Your task to perform on an android device: toggle improve location accuracy Image 0: 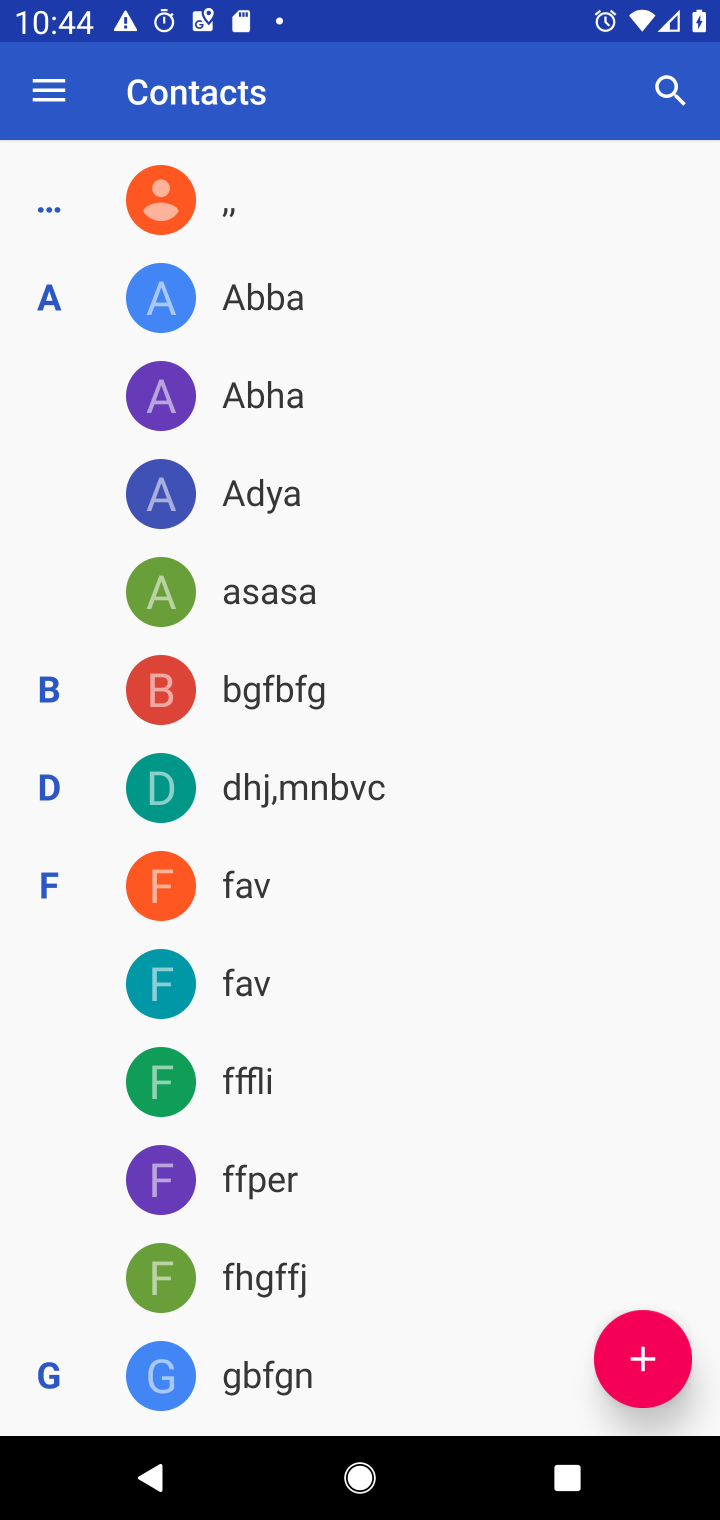
Step 0: press home button
Your task to perform on an android device: toggle improve location accuracy Image 1: 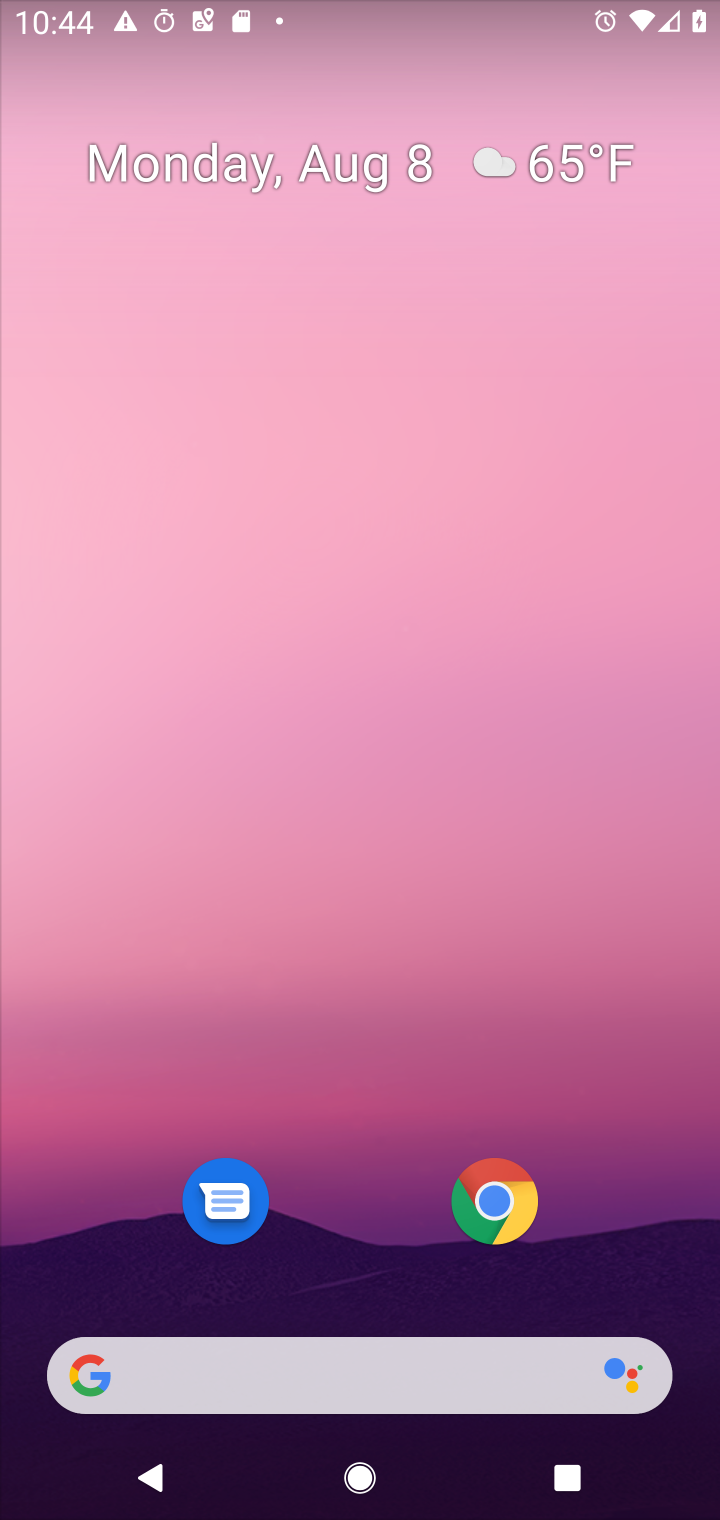
Step 1: drag from (367, 1263) to (442, 282)
Your task to perform on an android device: toggle improve location accuracy Image 2: 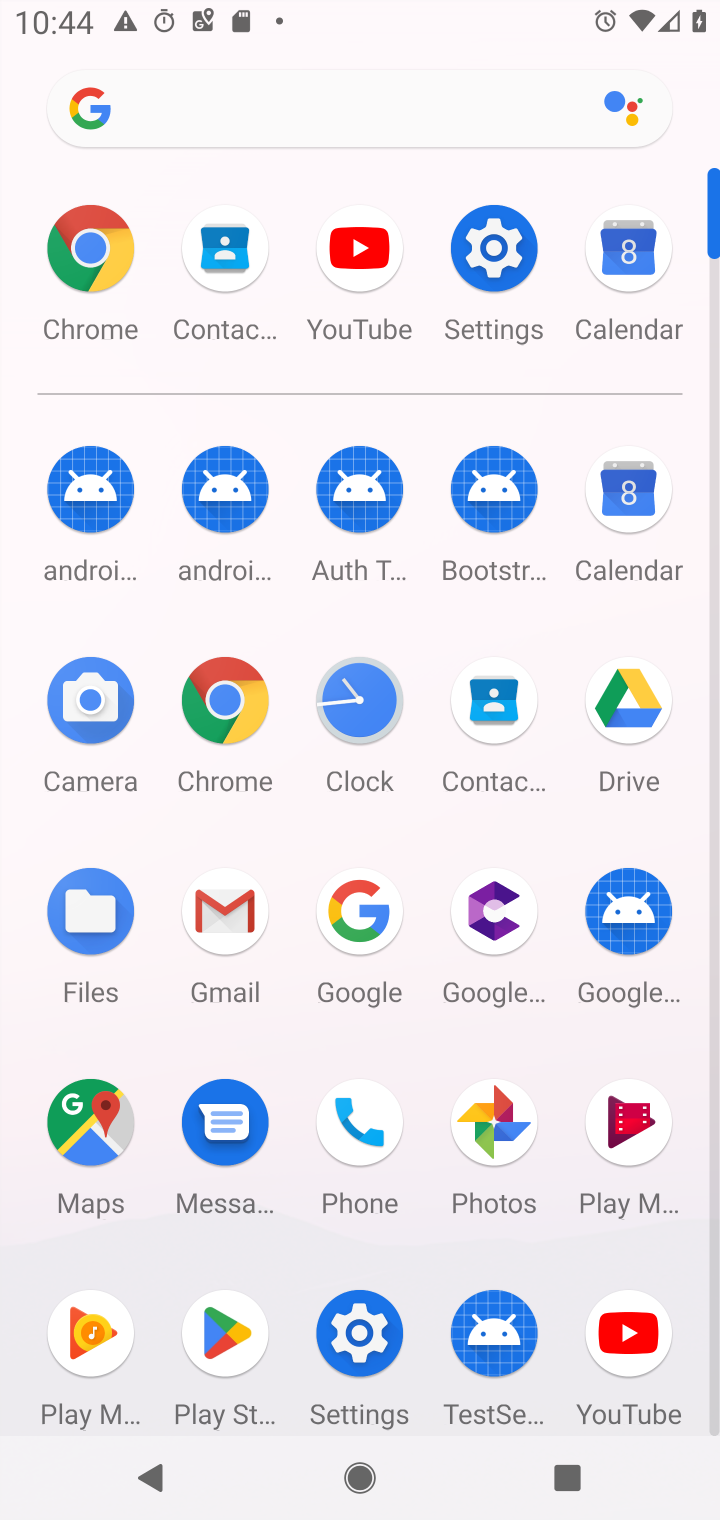
Step 2: click (499, 244)
Your task to perform on an android device: toggle improve location accuracy Image 3: 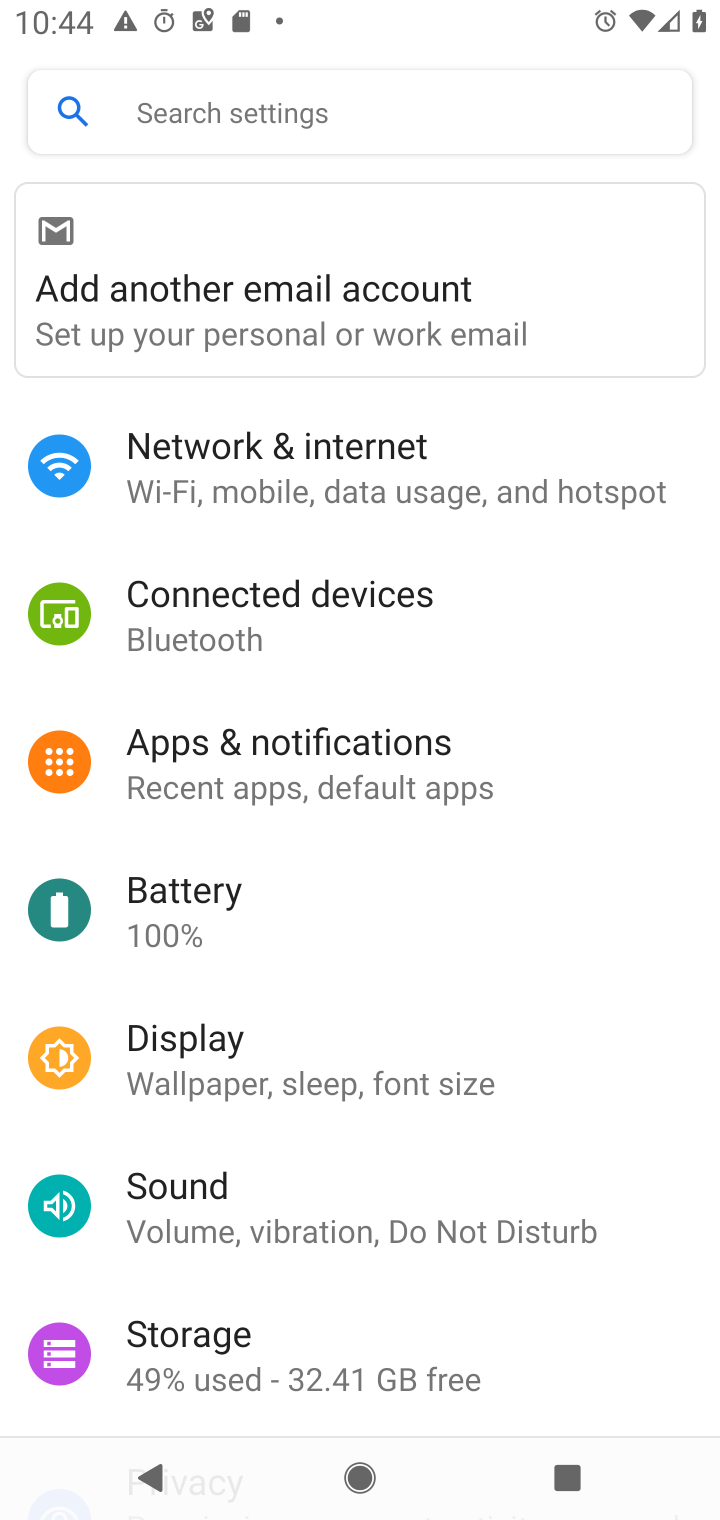
Step 3: drag from (631, 830) to (657, 548)
Your task to perform on an android device: toggle improve location accuracy Image 4: 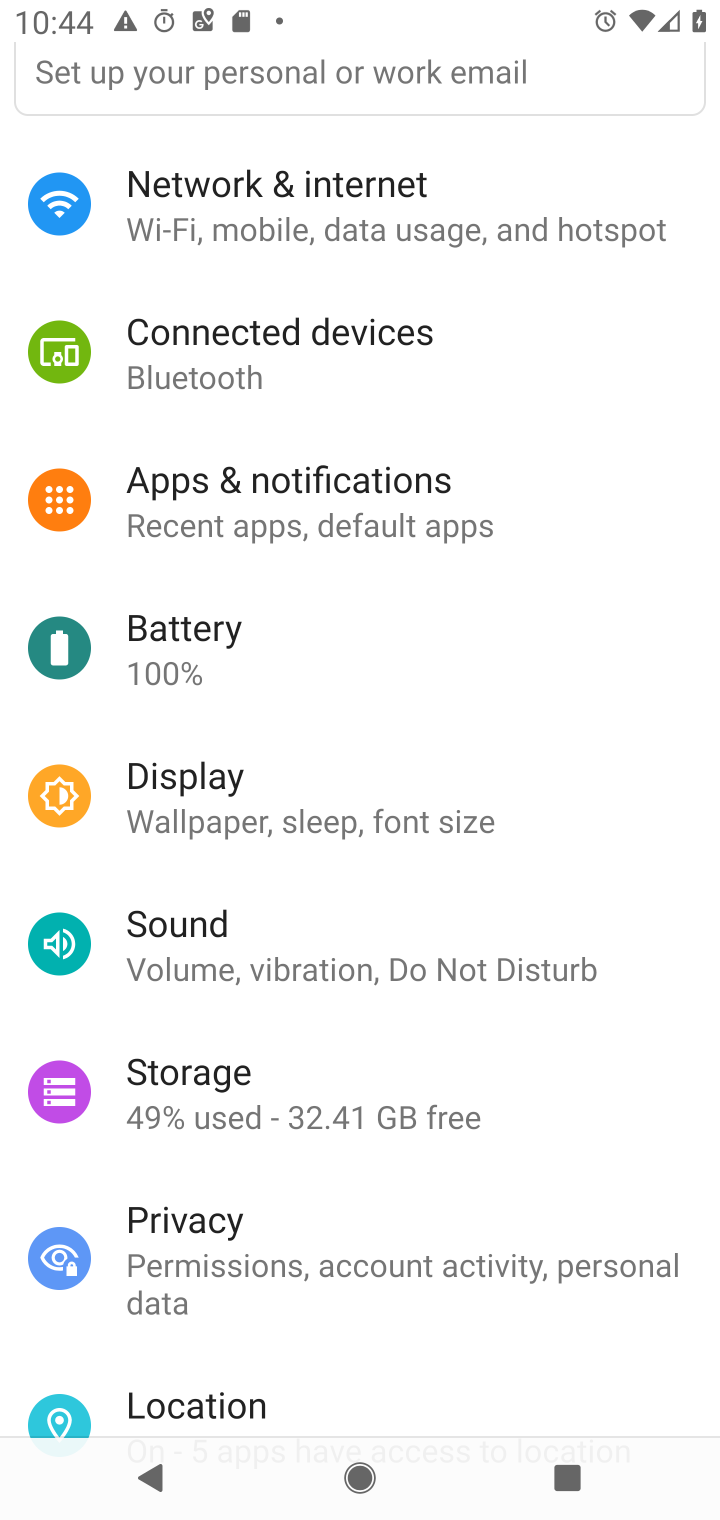
Step 4: drag from (646, 837) to (628, 497)
Your task to perform on an android device: toggle improve location accuracy Image 5: 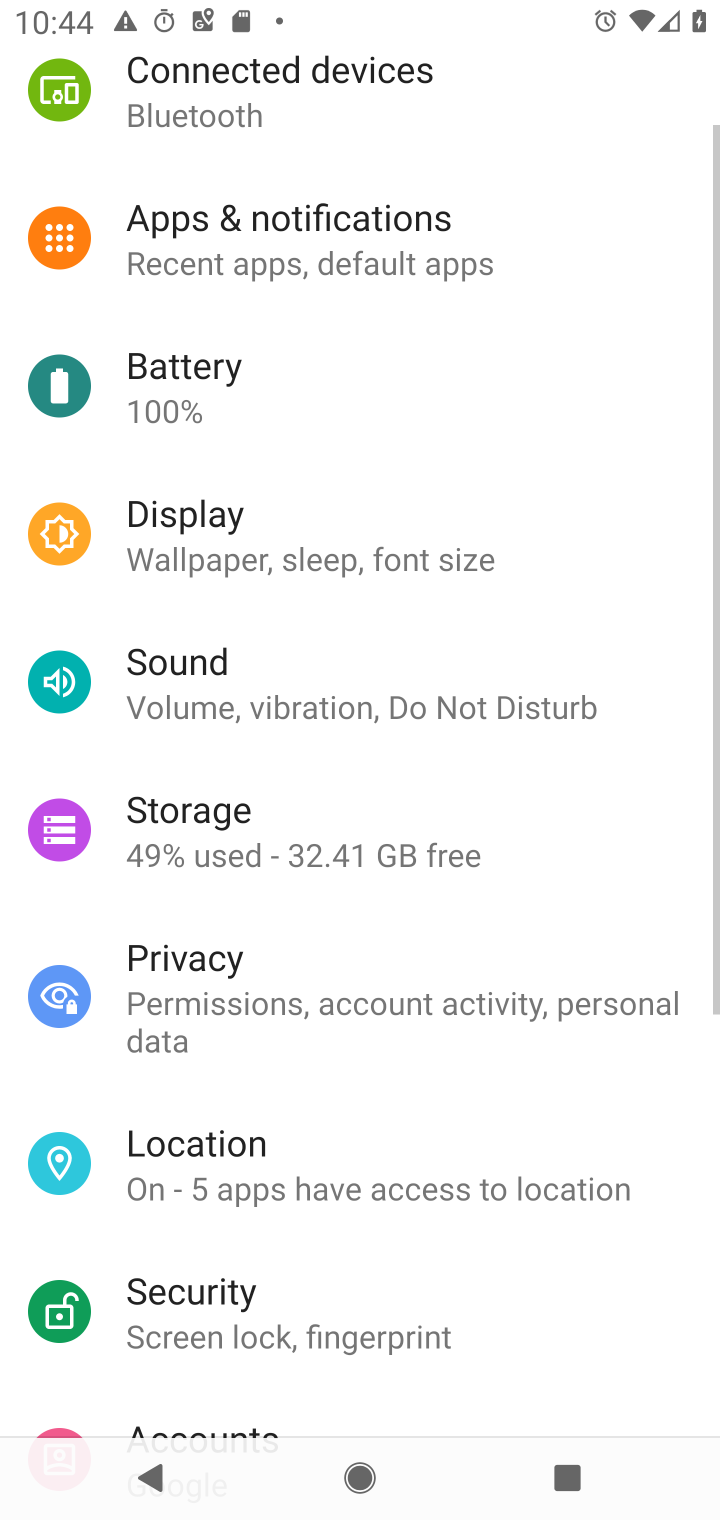
Step 5: drag from (639, 902) to (626, 620)
Your task to perform on an android device: toggle improve location accuracy Image 6: 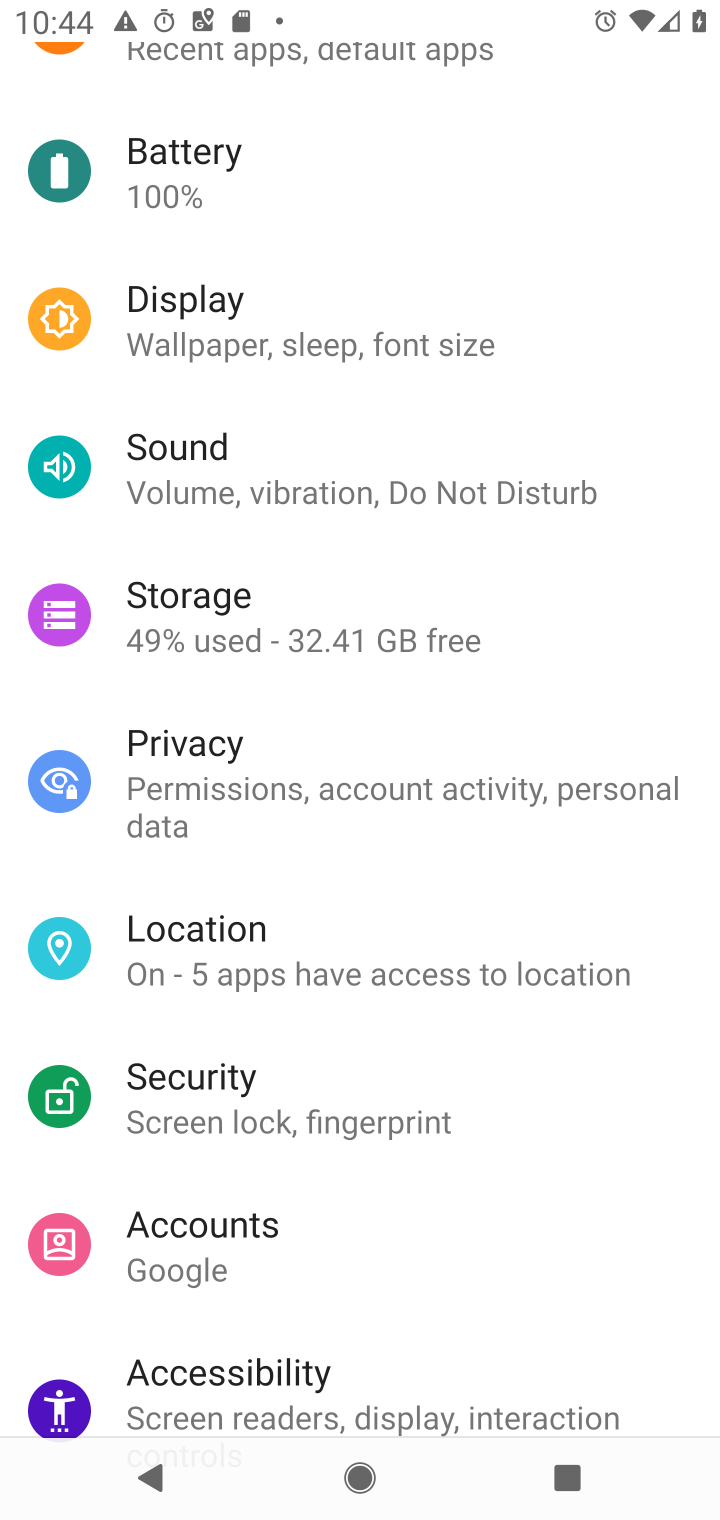
Step 6: drag from (639, 961) to (630, 631)
Your task to perform on an android device: toggle improve location accuracy Image 7: 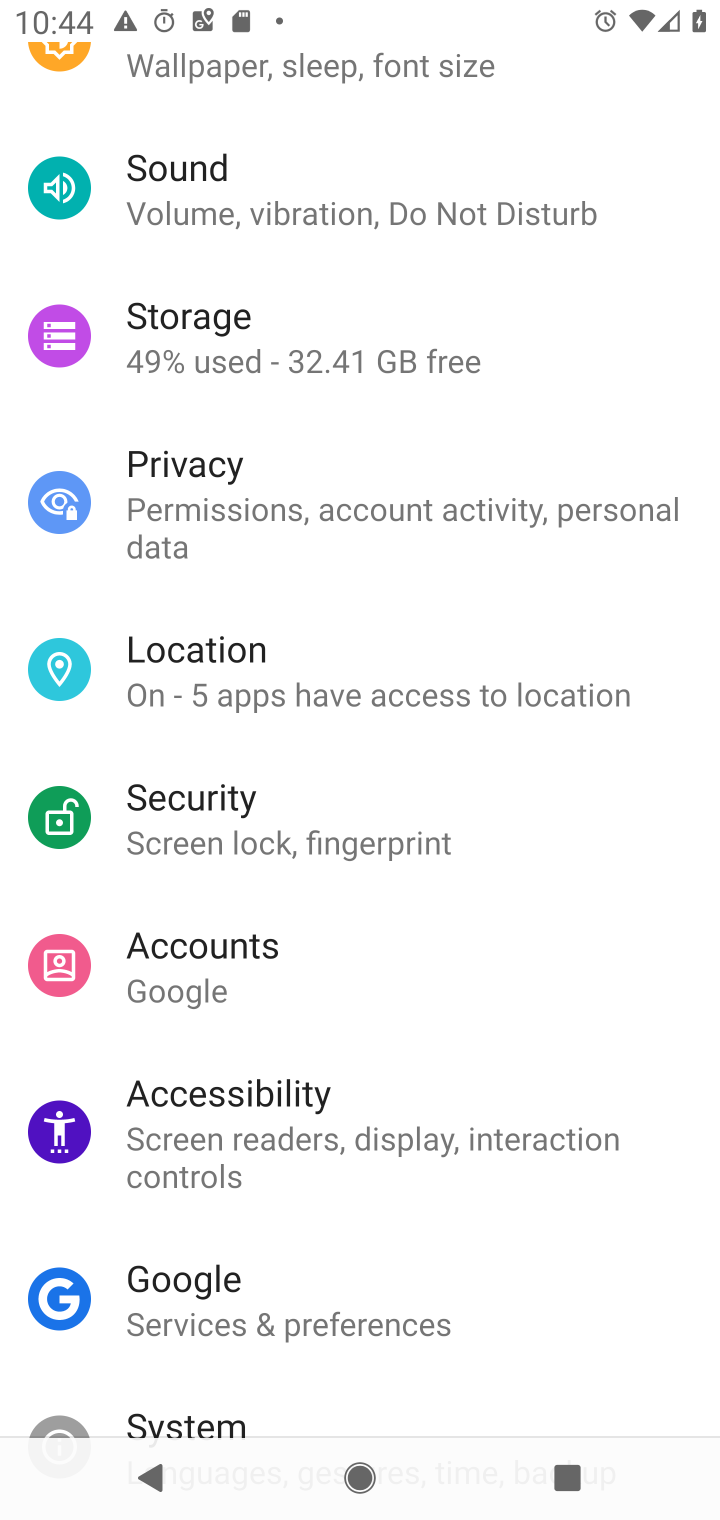
Step 7: drag from (620, 963) to (610, 635)
Your task to perform on an android device: toggle improve location accuracy Image 8: 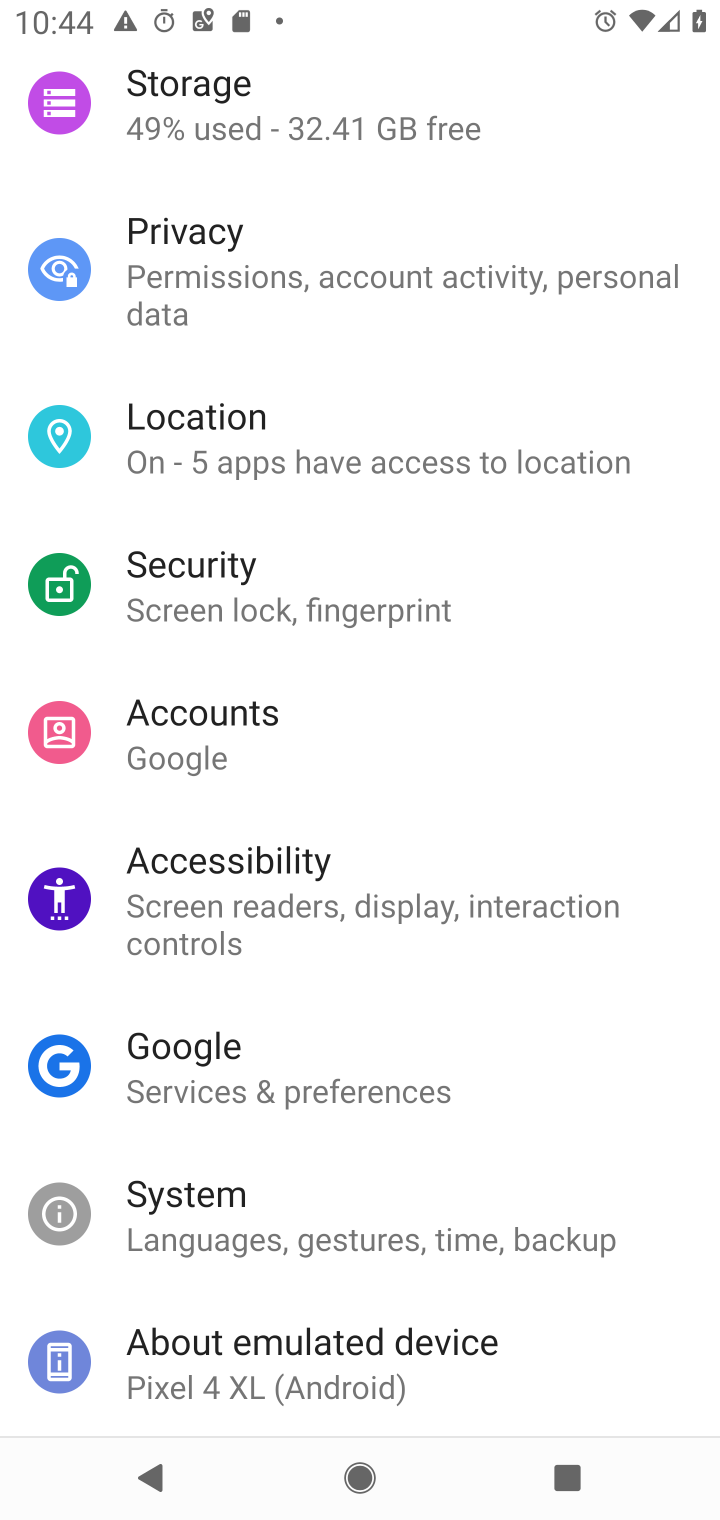
Step 8: drag from (642, 806) to (645, 660)
Your task to perform on an android device: toggle improve location accuracy Image 9: 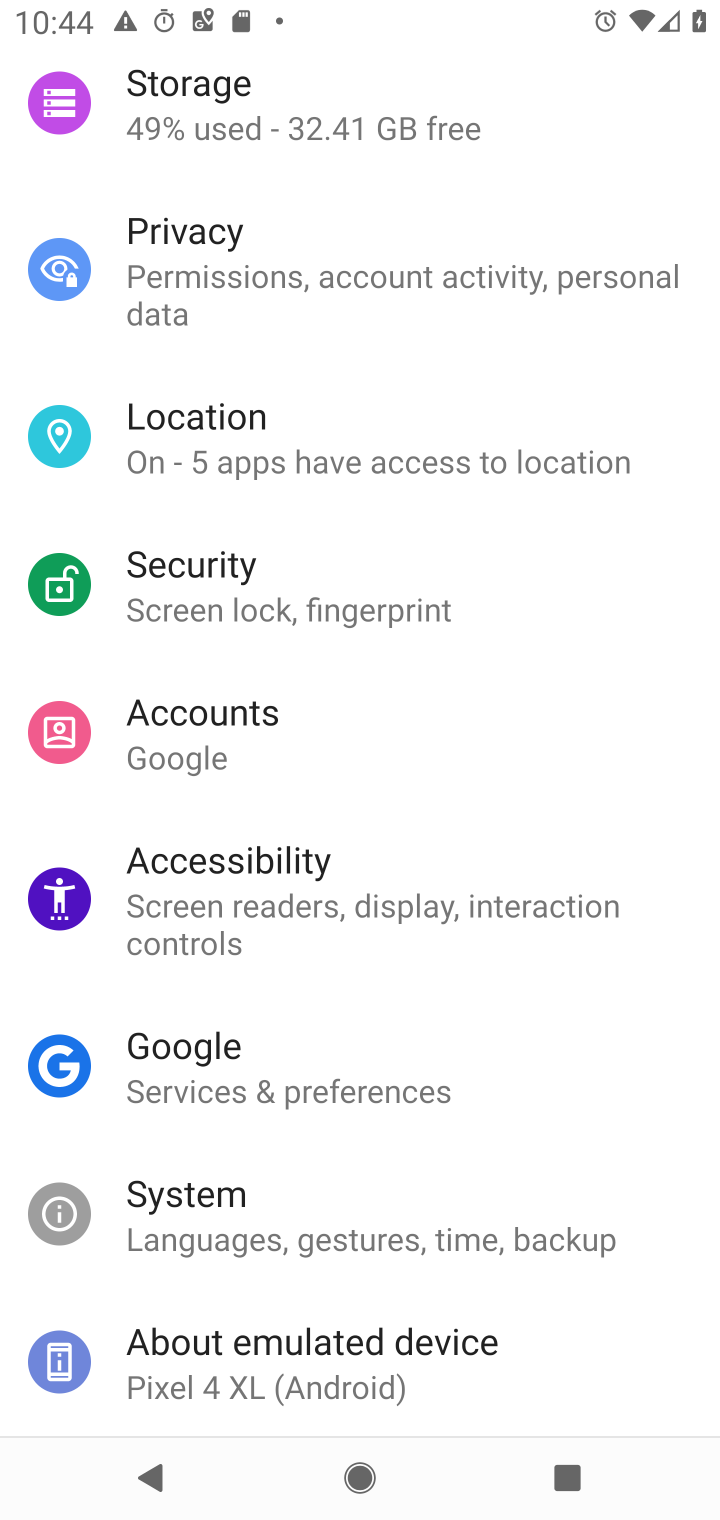
Step 9: drag from (657, 538) to (667, 860)
Your task to perform on an android device: toggle improve location accuracy Image 10: 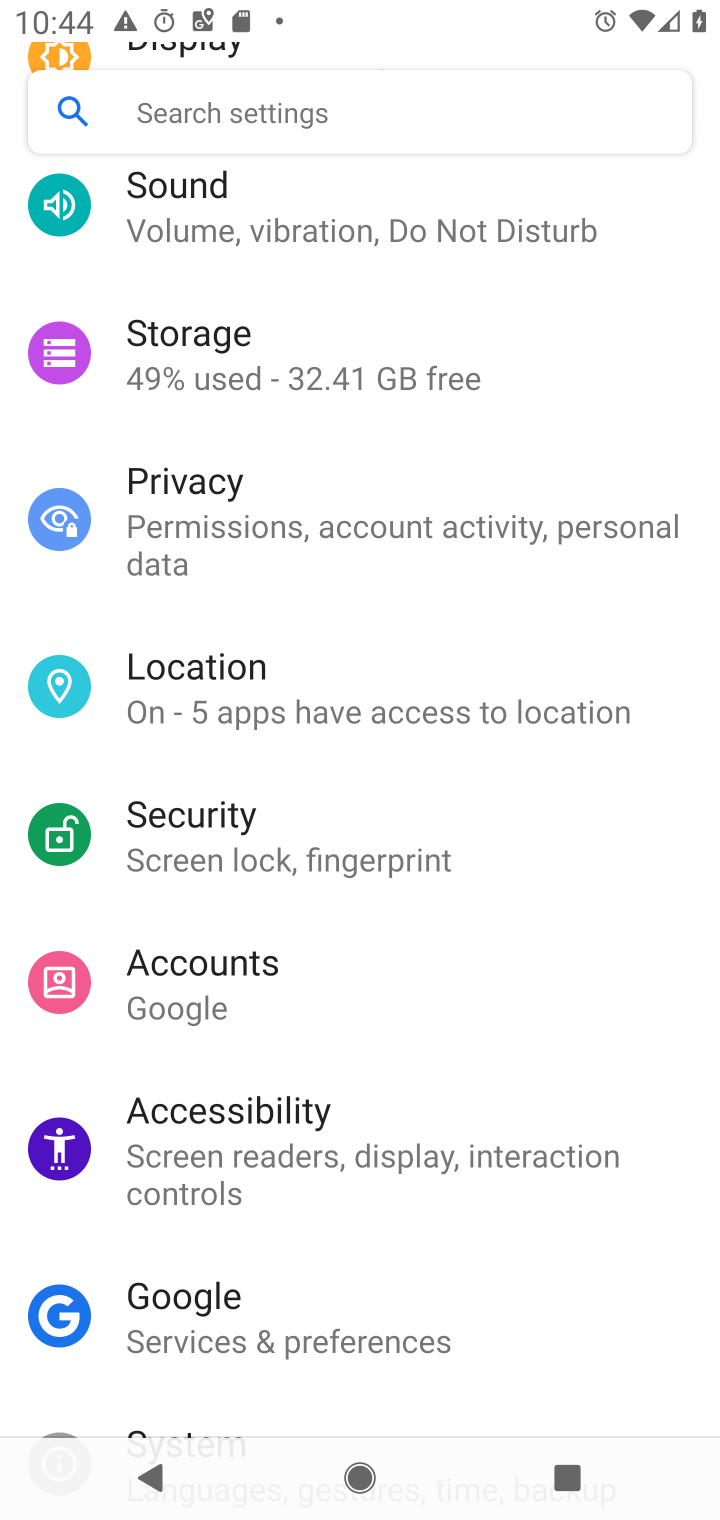
Step 10: drag from (657, 434) to (672, 799)
Your task to perform on an android device: toggle improve location accuracy Image 11: 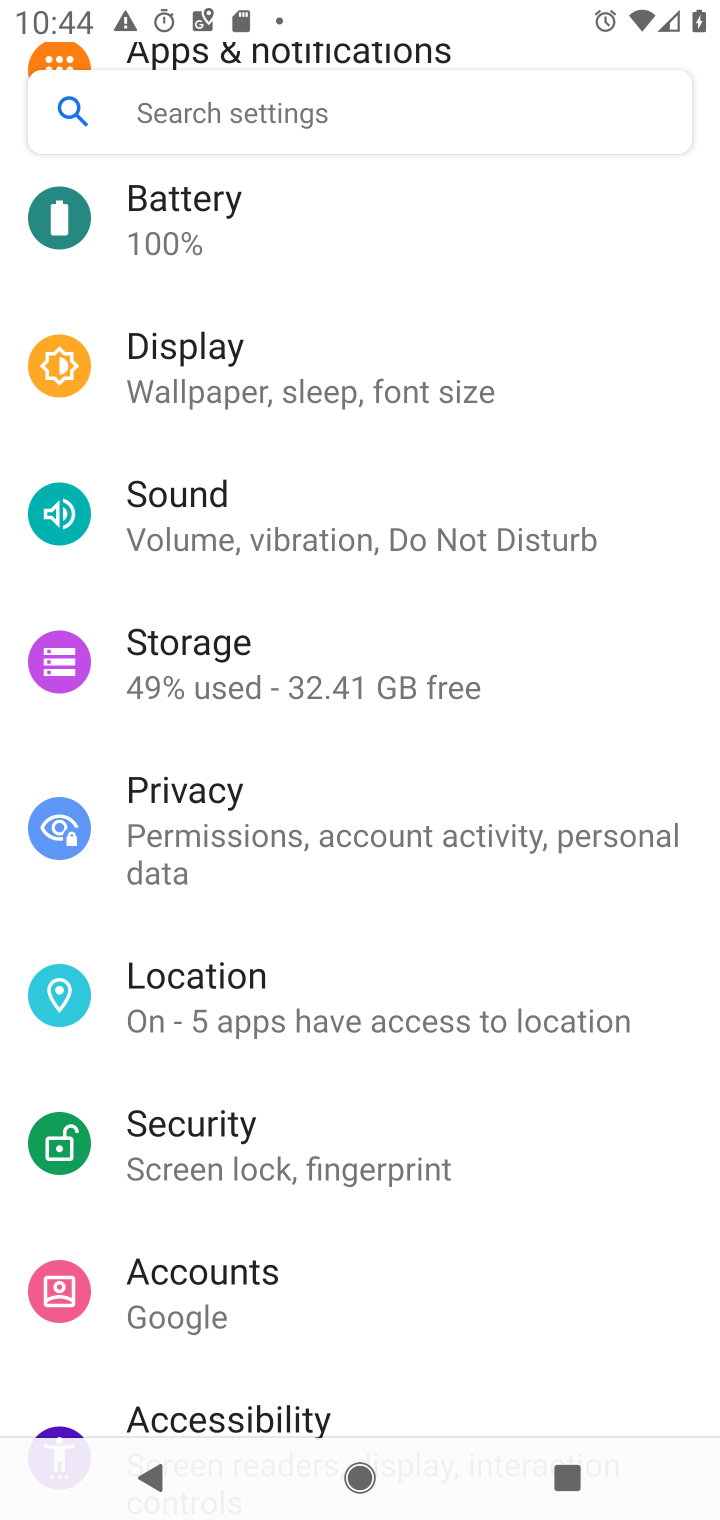
Step 11: click (517, 1013)
Your task to perform on an android device: toggle improve location accuracy Image 12: 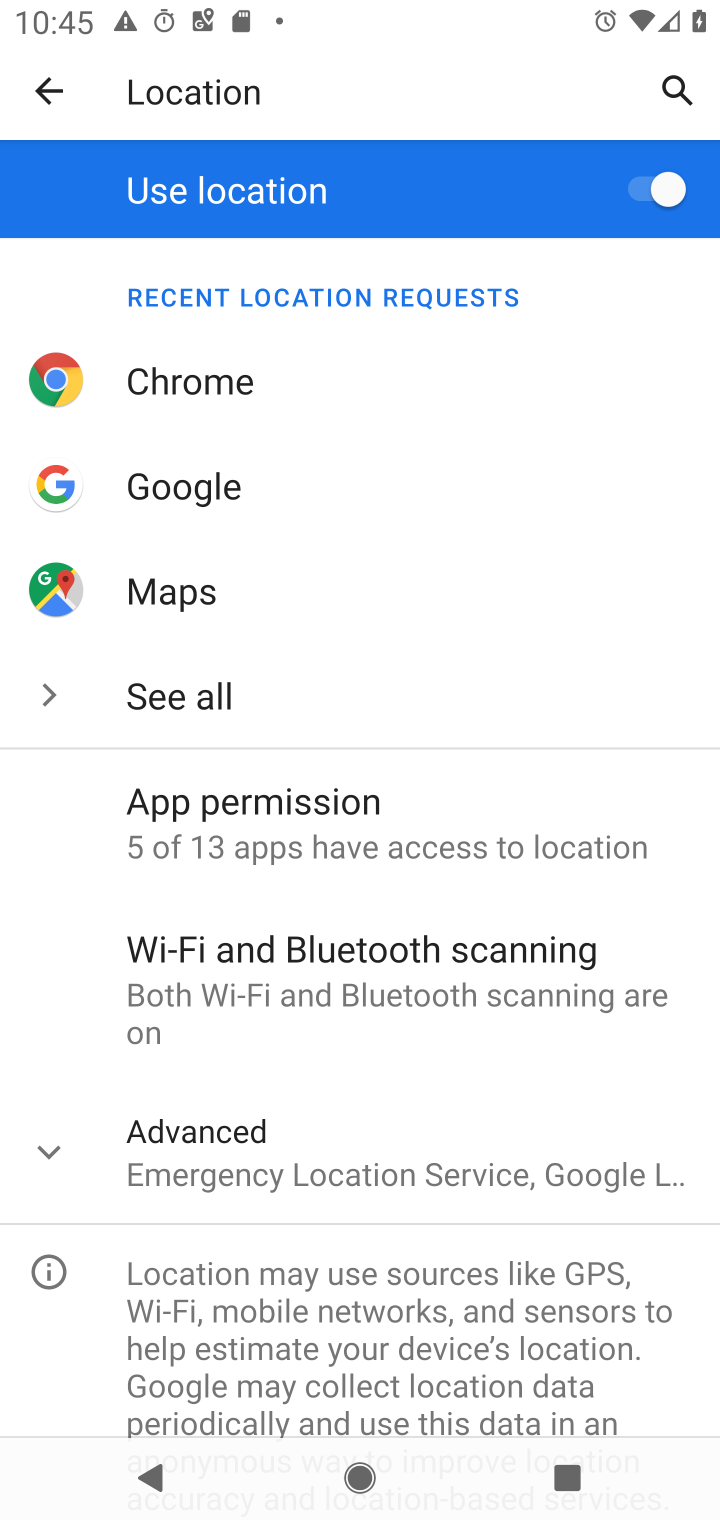
Step 12: click (517, 1130)
Your task to perform on an android device: toggle improve location accuracy Image 13: 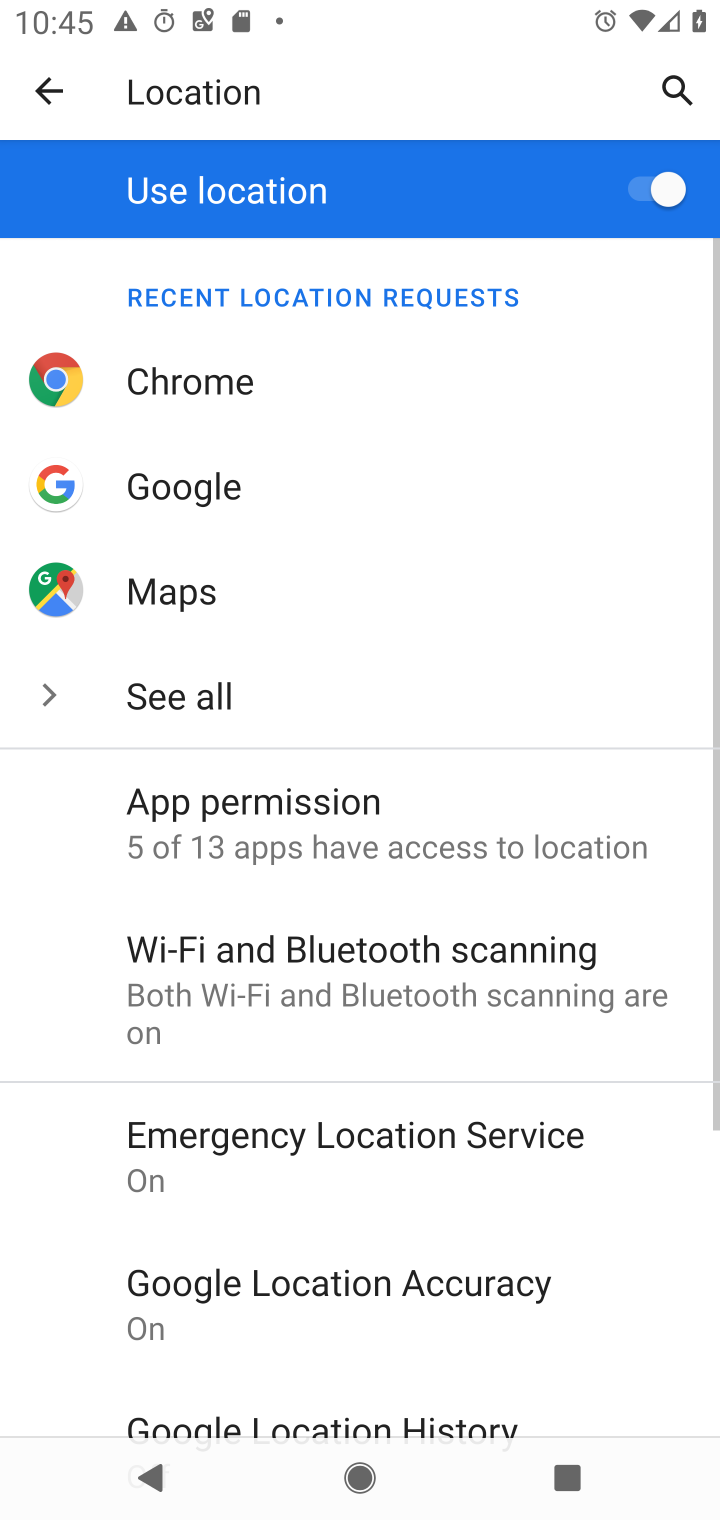
Step 13: drag from (517, 1130) to (530, 797)
Your task to perform on an android device: toggle improve location accuracy Image 14: 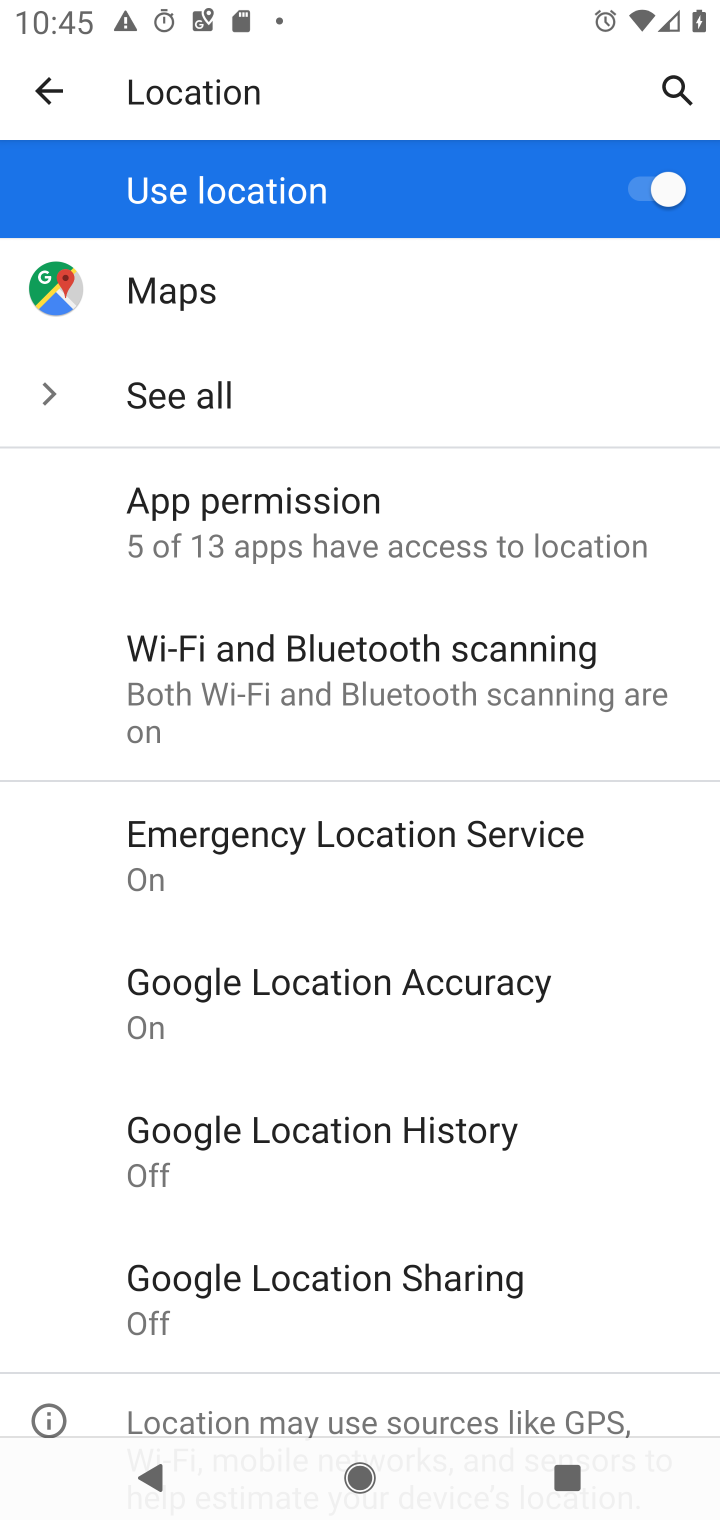
Step 14: click (371, 953)
Your task to perform on an android device: toggle improve location accuracy Image 15: 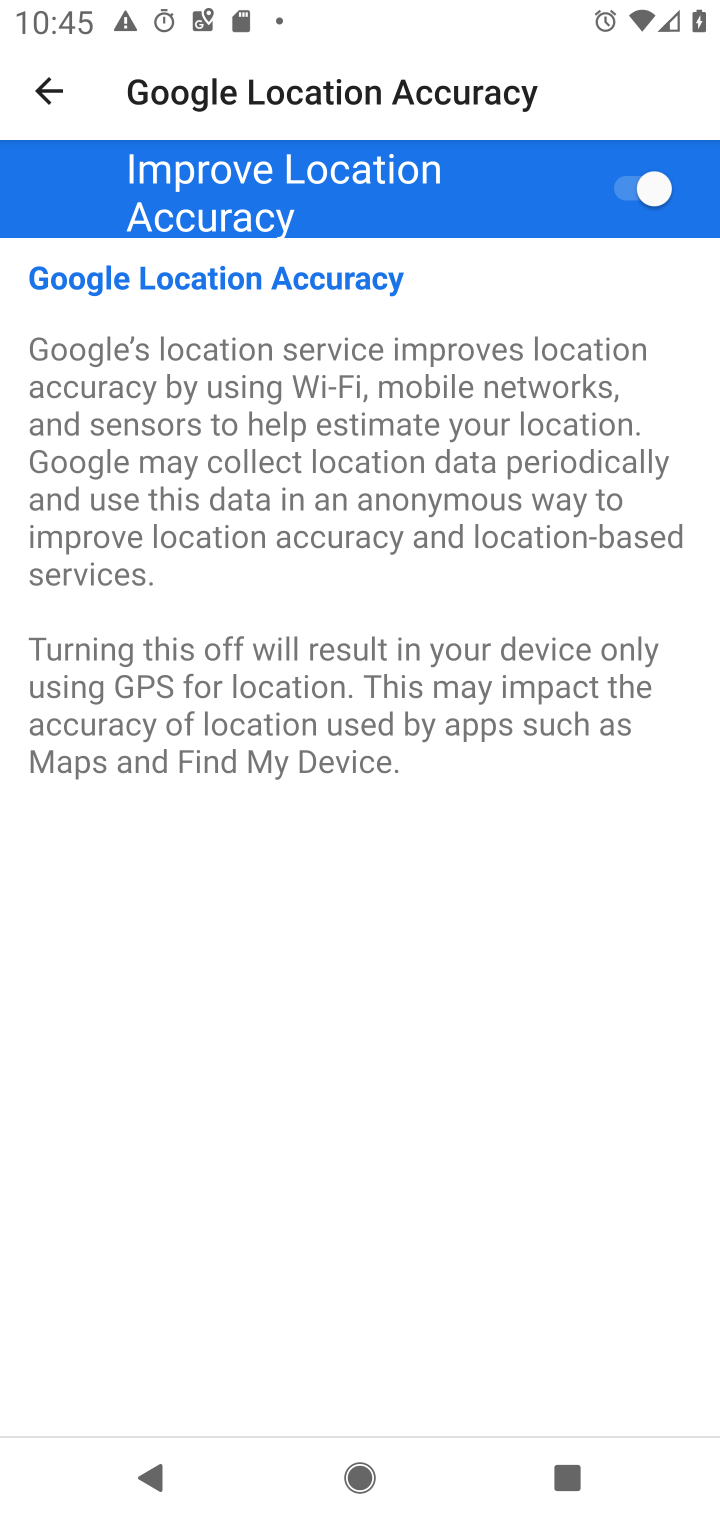
Step 15: click (645, 170)
Your task to perform on an android device: toggle improve location accuracy Image 16: 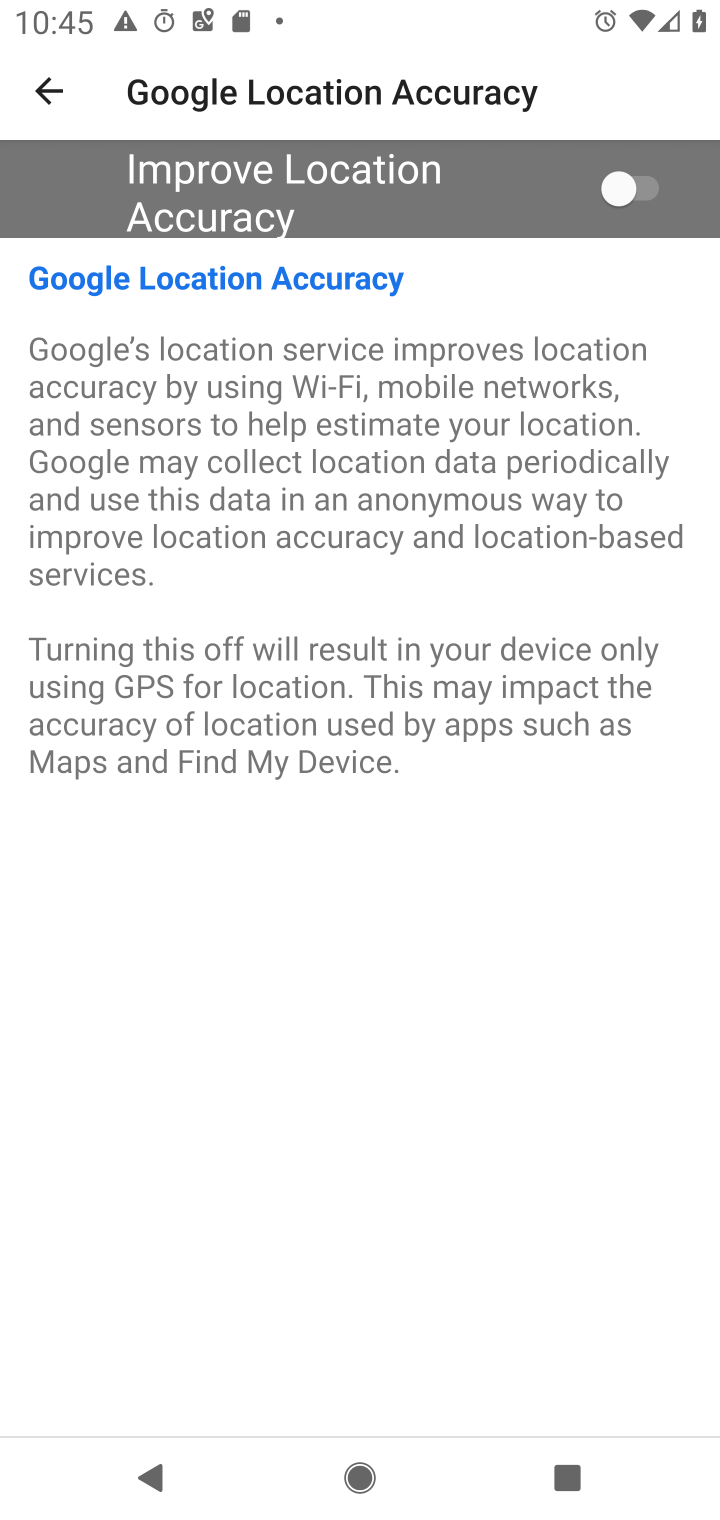
Step 16: task complete